Your task to perform on an android device: Go to calendar. Show me events next week Image 0: 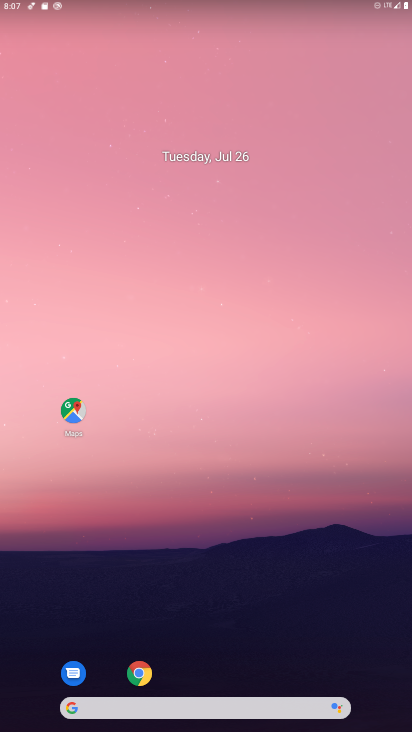
Step 0: drag from (192, 232) to (98, 0)
Your task to perform on an android device: Go to calendar. Show me events next week Image 1: 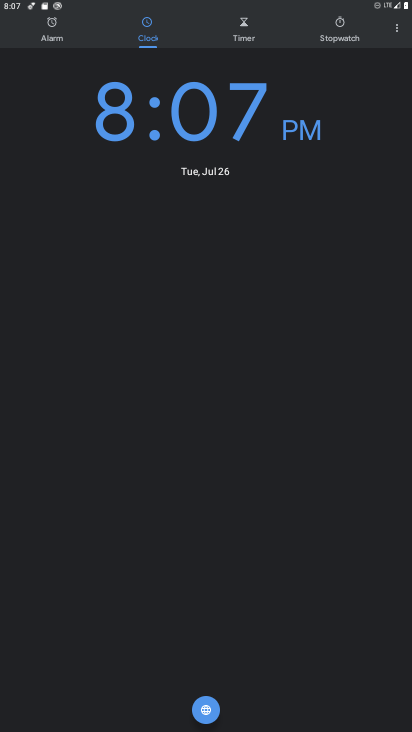
Step 1: press home button
Your task to perform on an android device: Go to calendar. Show me events next week Image 2: 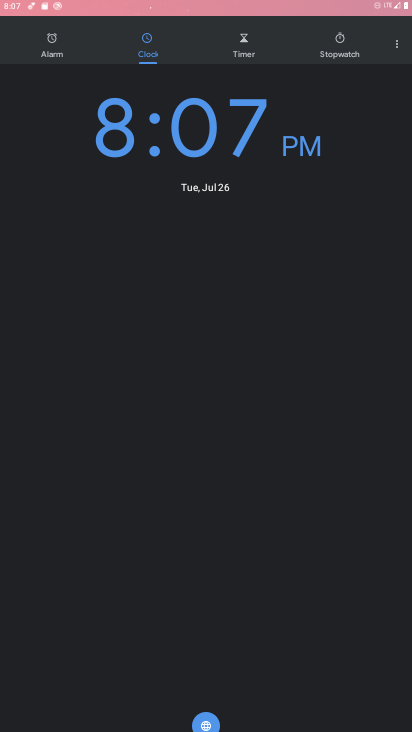
Step 2: drag from (372, 677) to (116, 60)
Your task to perform on an android device: Go to calendar. Show me events next week Image 3: 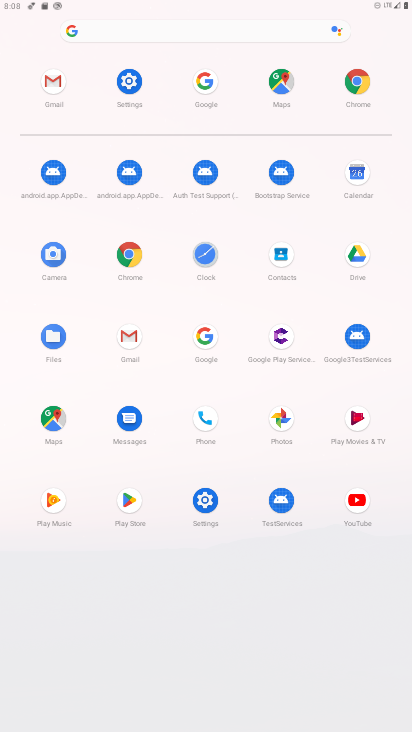
Step 3: click (350, 185)
Your task to perform on an android device: Go to calendar. Show me events next week Image 4: 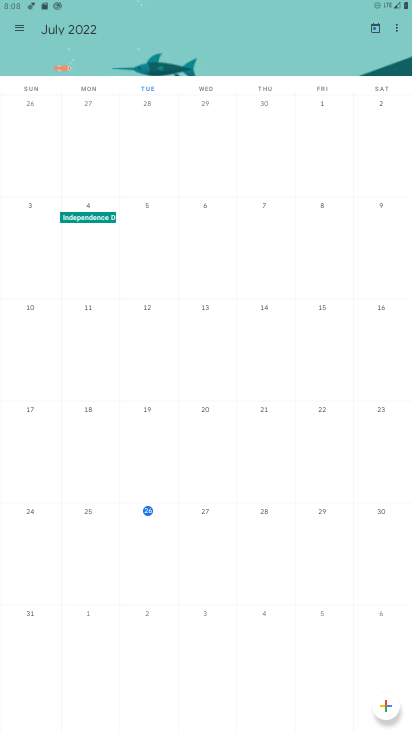
Step 4: task complete